Your task to perform on an android device: Go to Google maps Image 0: 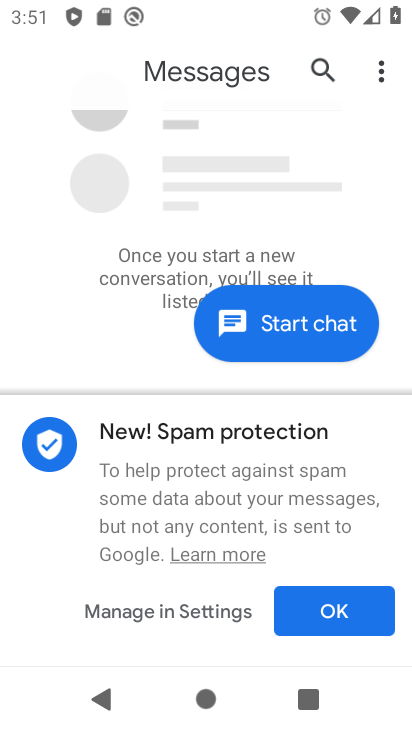
Step 0: press home button
Your task to perform on an android device: Go to Google maps Image 1: 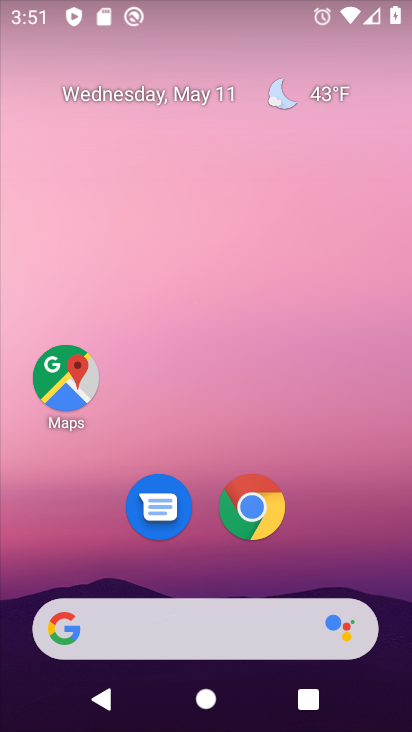
Step 1: click (67, 379)
Your task to perform on an android device: Go to Google maps Image 2: 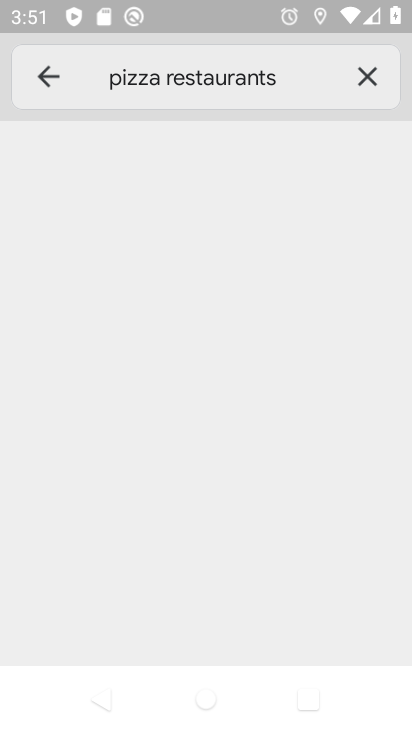
Step 2: click (366, 76)
Your task to perform on an android device: Go to Google maps Image 3: 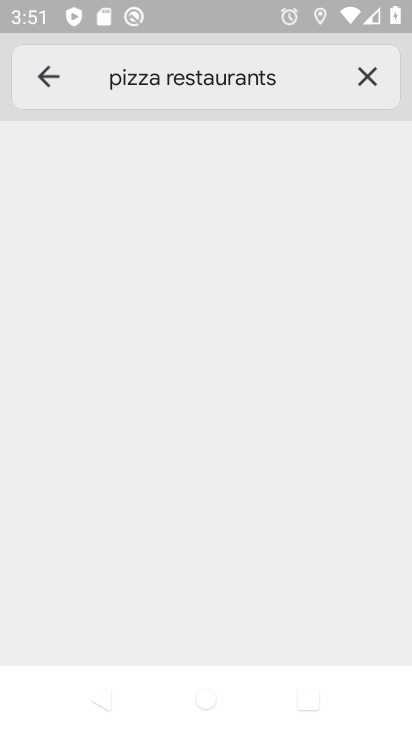
Step 3: click (366, 76)
Your task to perform on an android device: Go to Google maps Image 4: 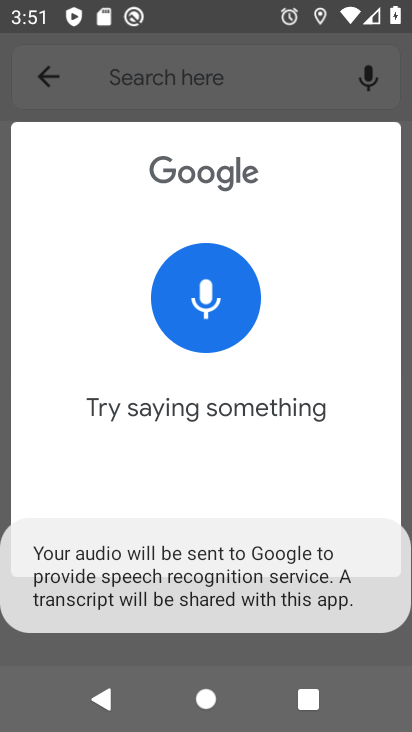
Step 4: task complete